Your task to perform on an android device: search for starred emails in the gmail app Image 0: 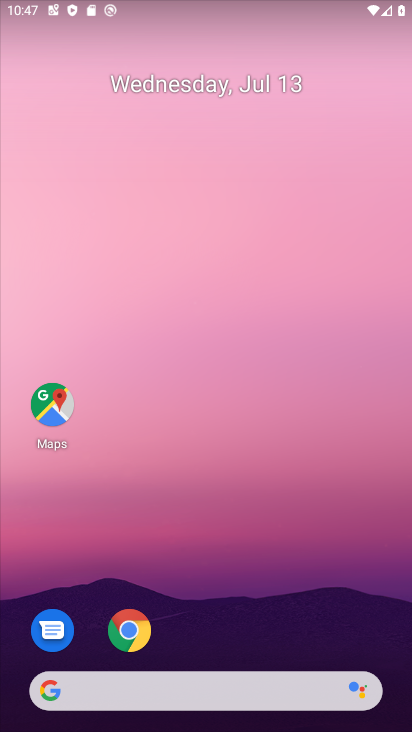
Step 0: drag from (261, 528) to (321, 7)
Your task to perform on an android device: search for starred emails in the gmail app Image 1: 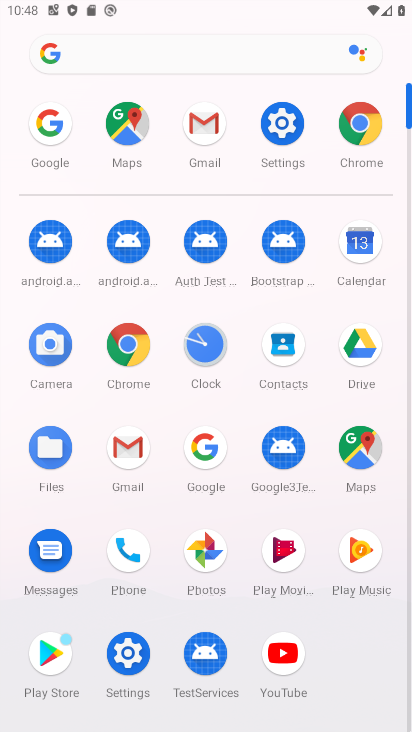
Step 1: click (199, 128)
Your task to perform on an android device: search for starred emails in the gmail app Image 2: 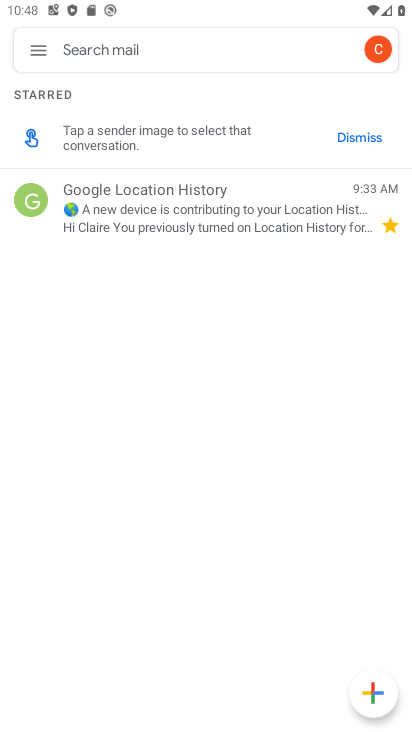
Step 2: click (53, 50)
Your task to perform on an android device: search for starred emails in the gmail app Image 3: 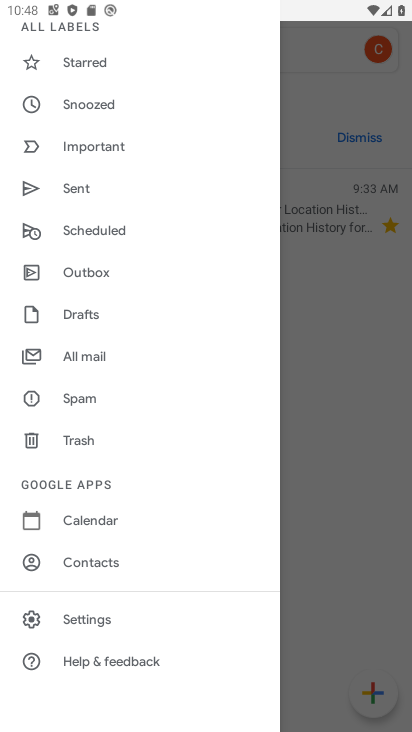
Step 3: click (87, 60)
Your task to perform on an android device: search for starred emails in the gmail app Image 4: 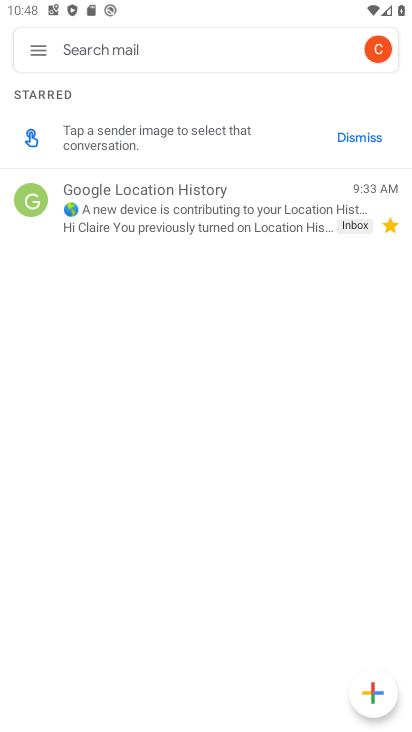
Step 4: task complete